Your task to perform on an android device: change the clock display to show seconds Image 0: 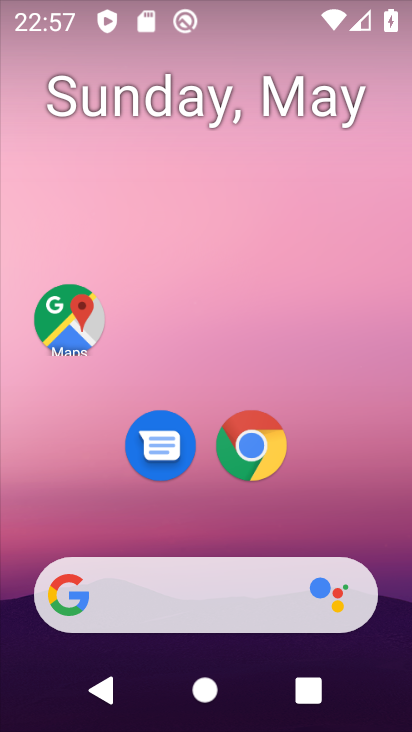
Step 0: drag from (325, 522) to (336, 75)
Your task to perform on an android device: change the clock display to show seconds Image 1: 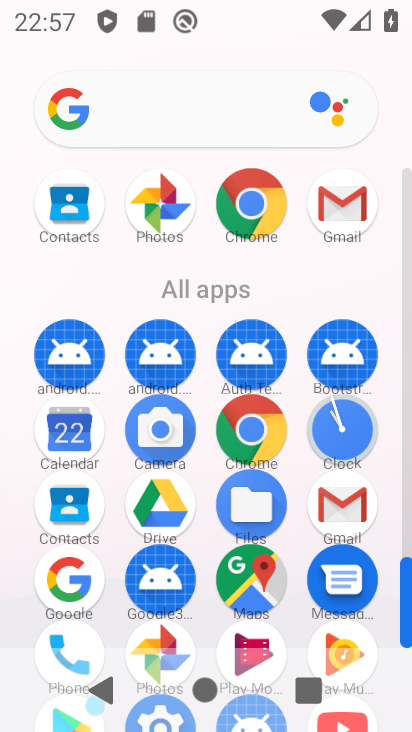
Step 1: click (350, 438)
Your task to perform on an android device: change the clock display to show seconds Image 2: 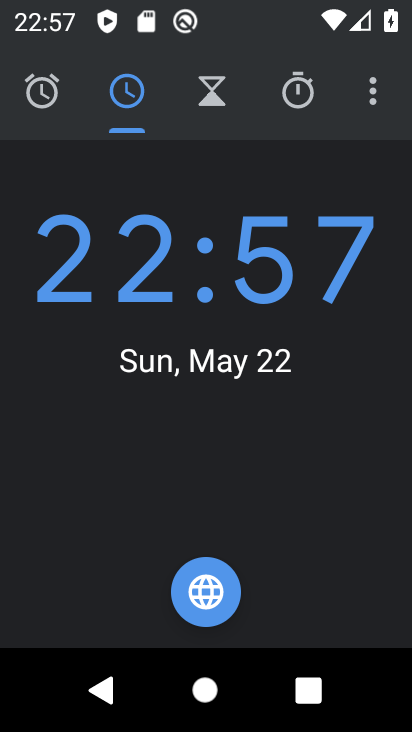
Step 2: click (373, 94)
Your task to perform on an android device: change the clock display to show seconds Image 3: 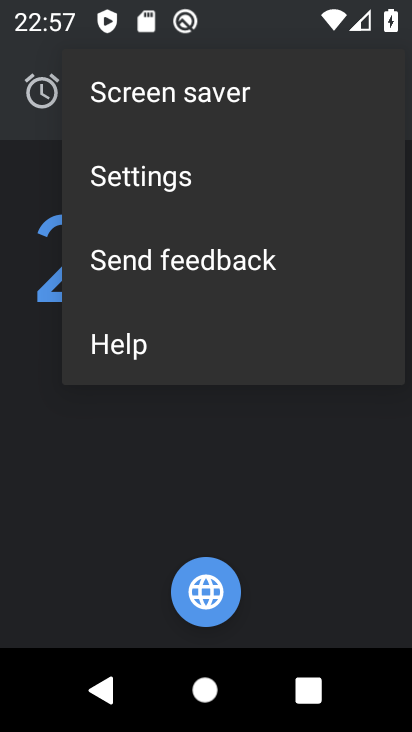
Step 3: click (137, 178)
Your task to perform on an android device: change the clock display to show seconds Image 4: 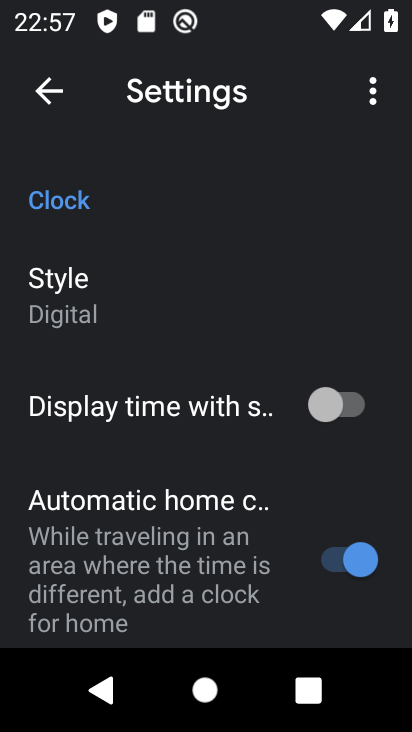
Step 4: click (193, 401)
Your task to perform on an android device: change the clock display to show seconds Image 5: 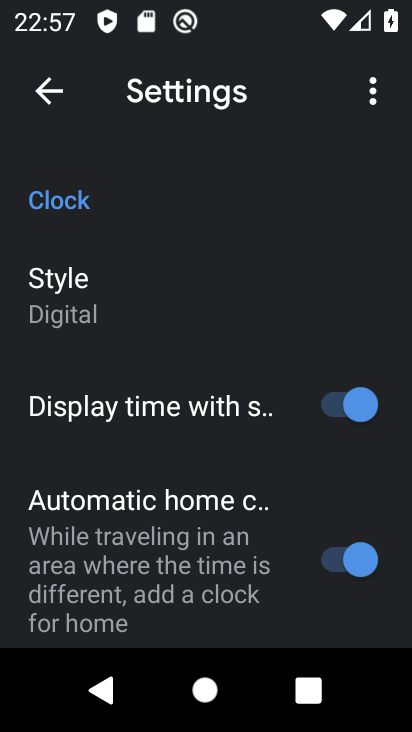
Step 5: task complete